Your task to perform on an android device: install app "Google Find My Device" Image 0: 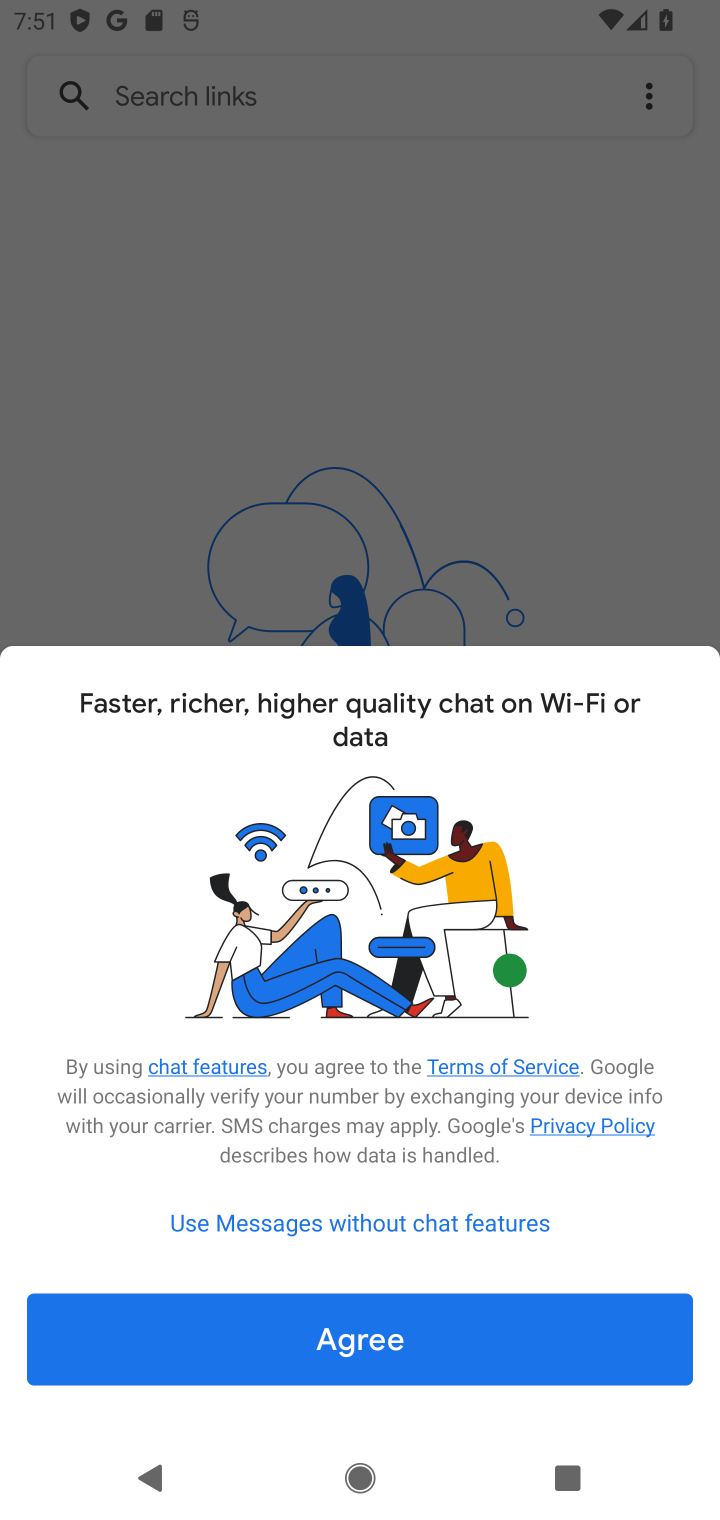
Step 0: press back button
Your task to perform on an android device: install app "Google Find My Device" Image 1: 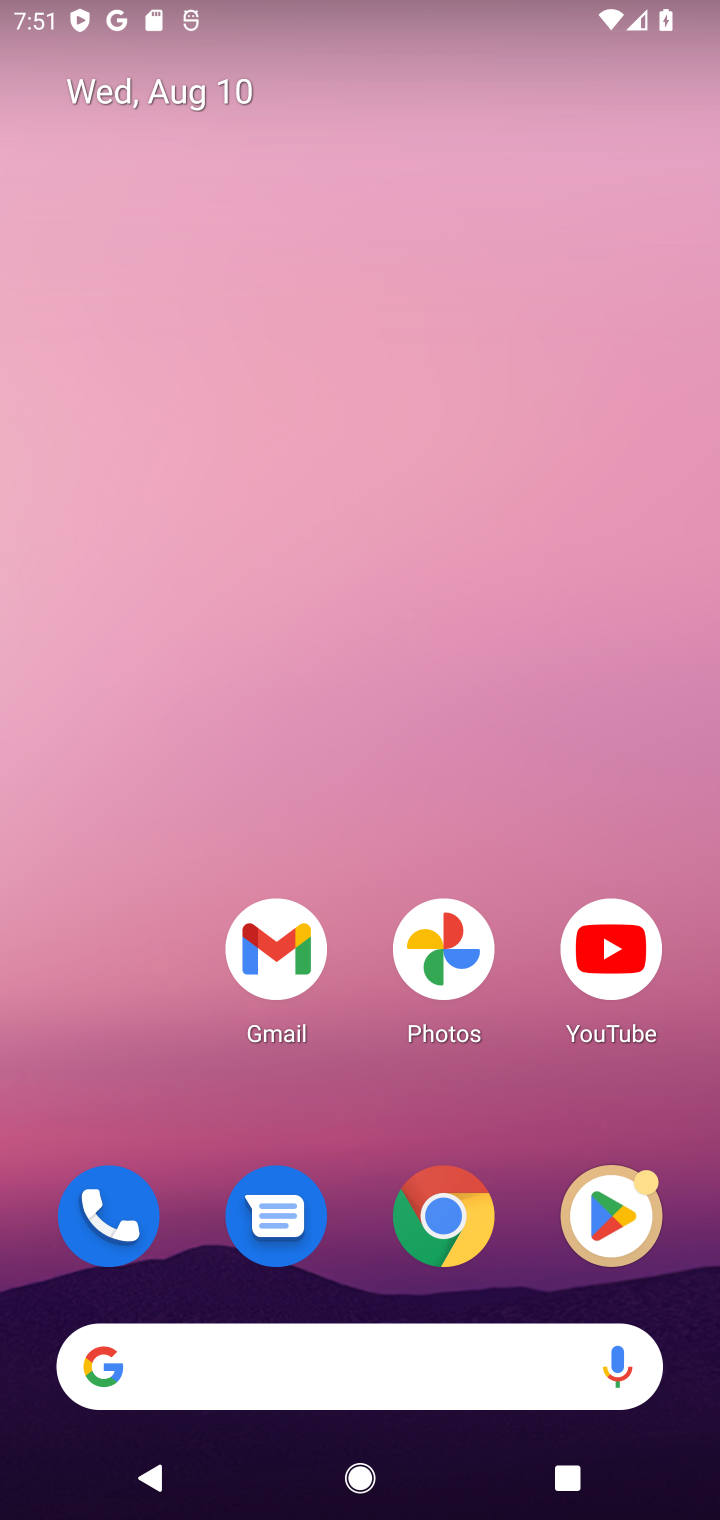
Step 1: click (596, 1209)
Your task to perform on an android device: install app "Google Find My Device" Image 2: 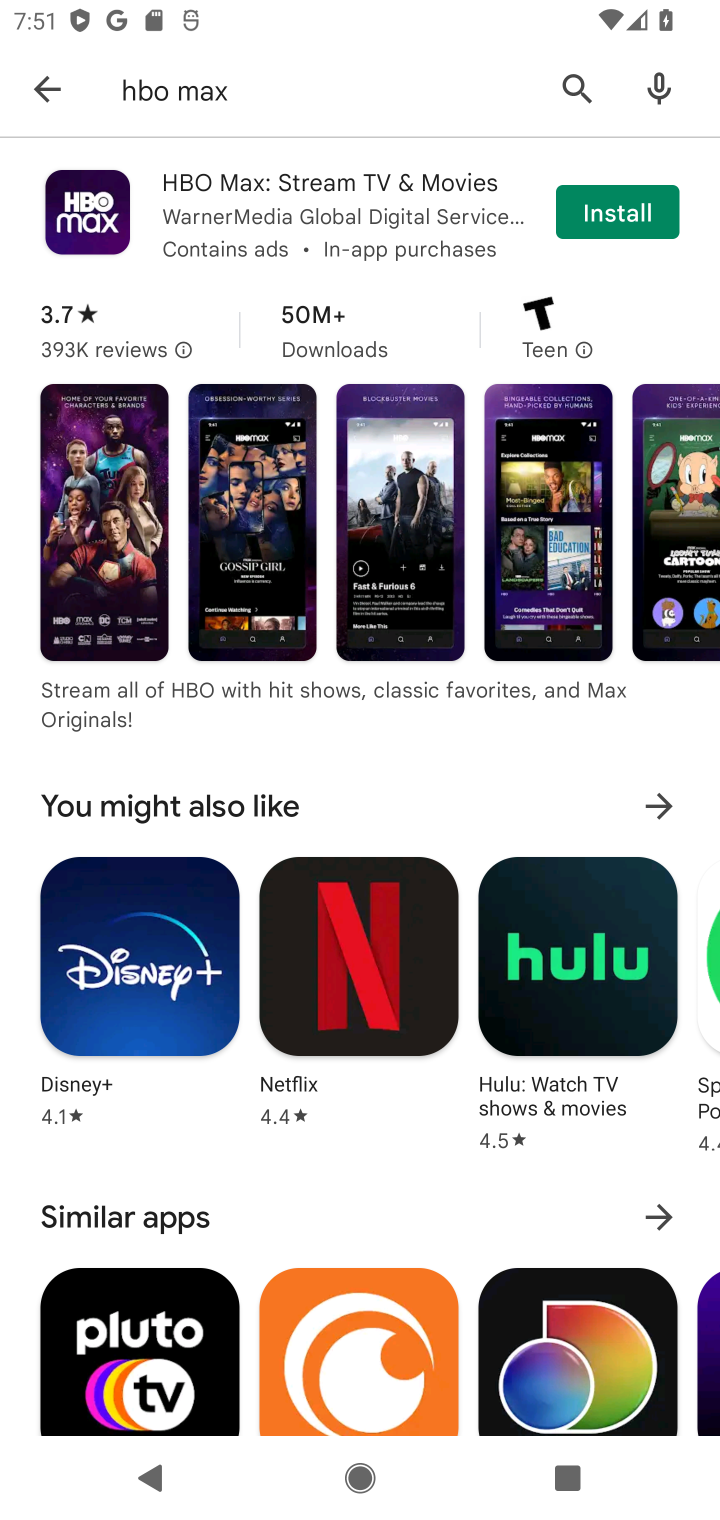
Step 2: click (572, 91)
Your task to perform on an android device: install app "Google Find My Device" Image 3: 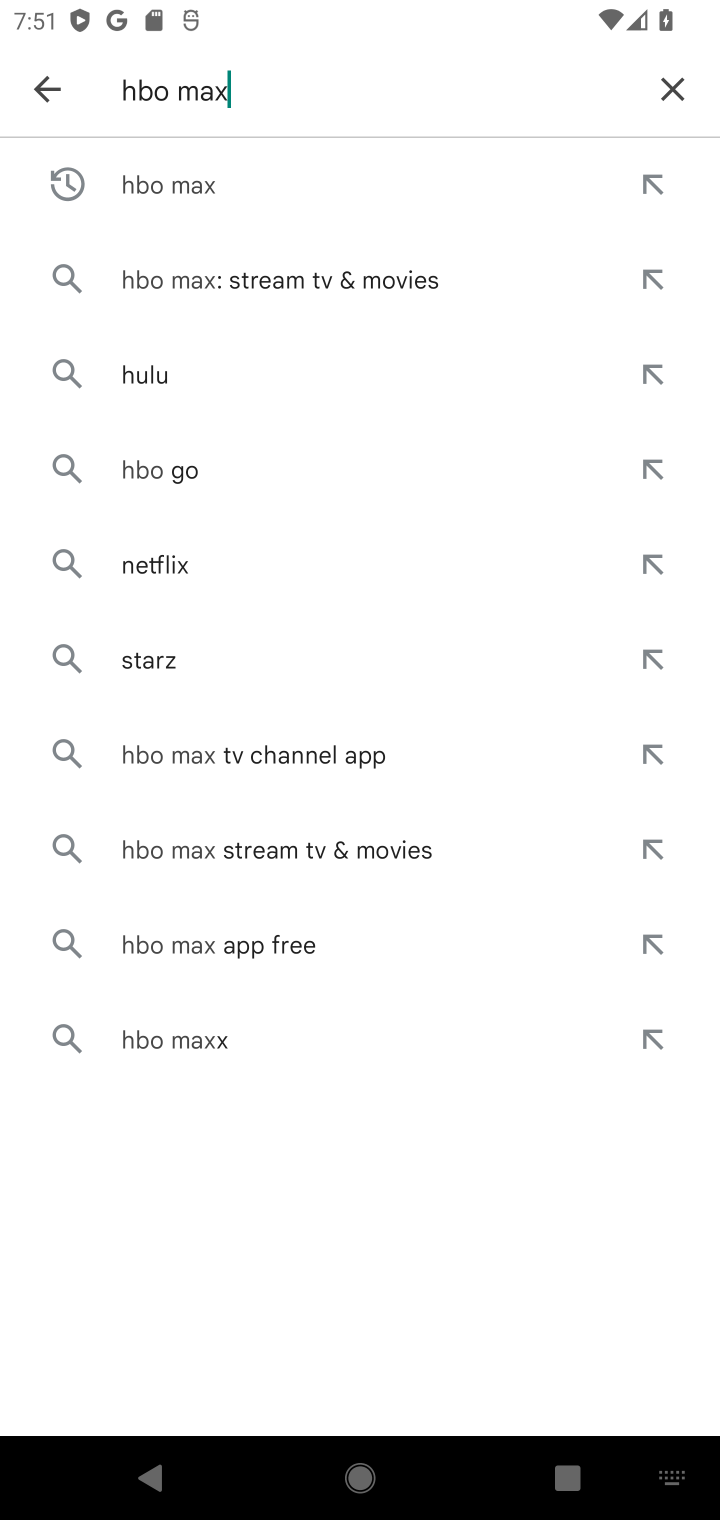
Step 3: click (673, 95)
Your task to perform on an android device: install app "Google Find My Device" Image 4: 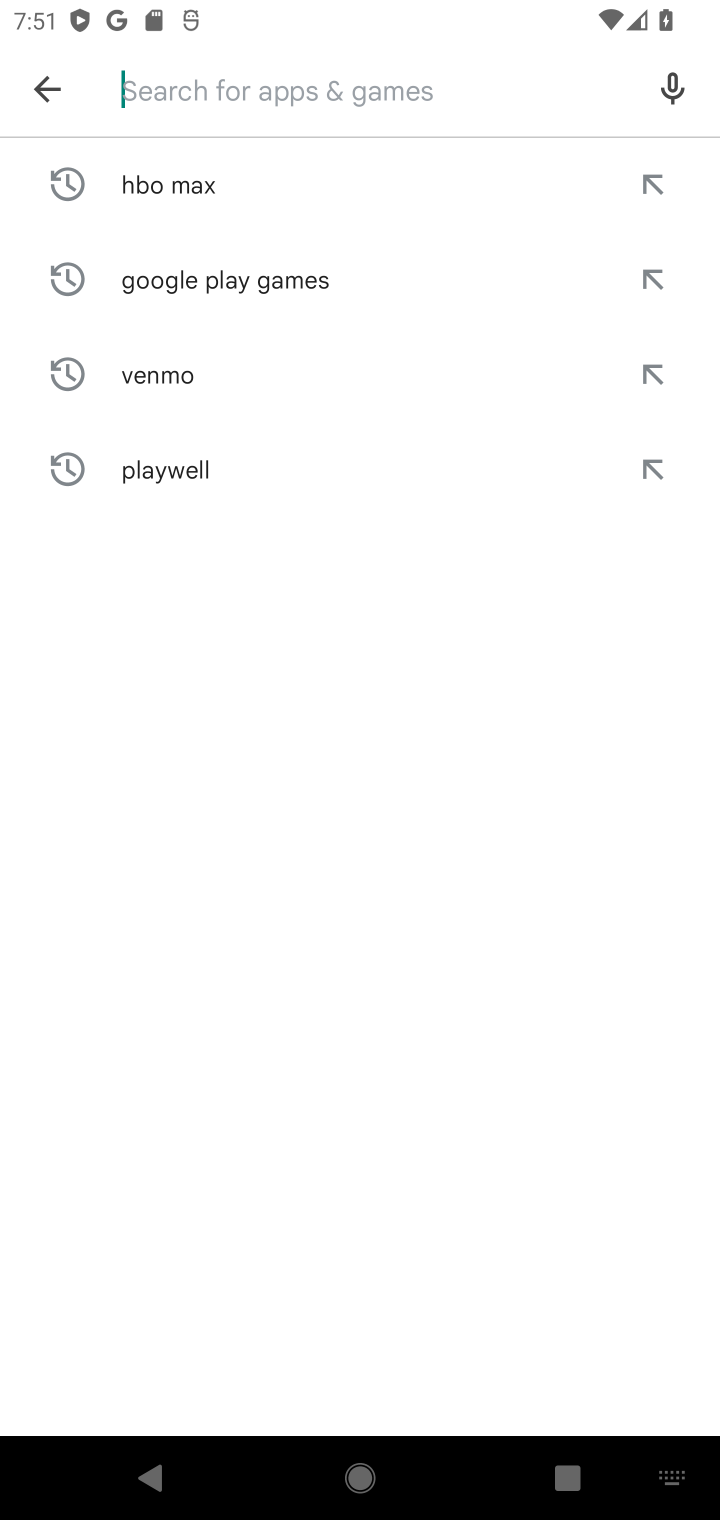
Step 4: click (287, 86)
Your task to perform on an android device: install app "Google Find My Device" Image 5: 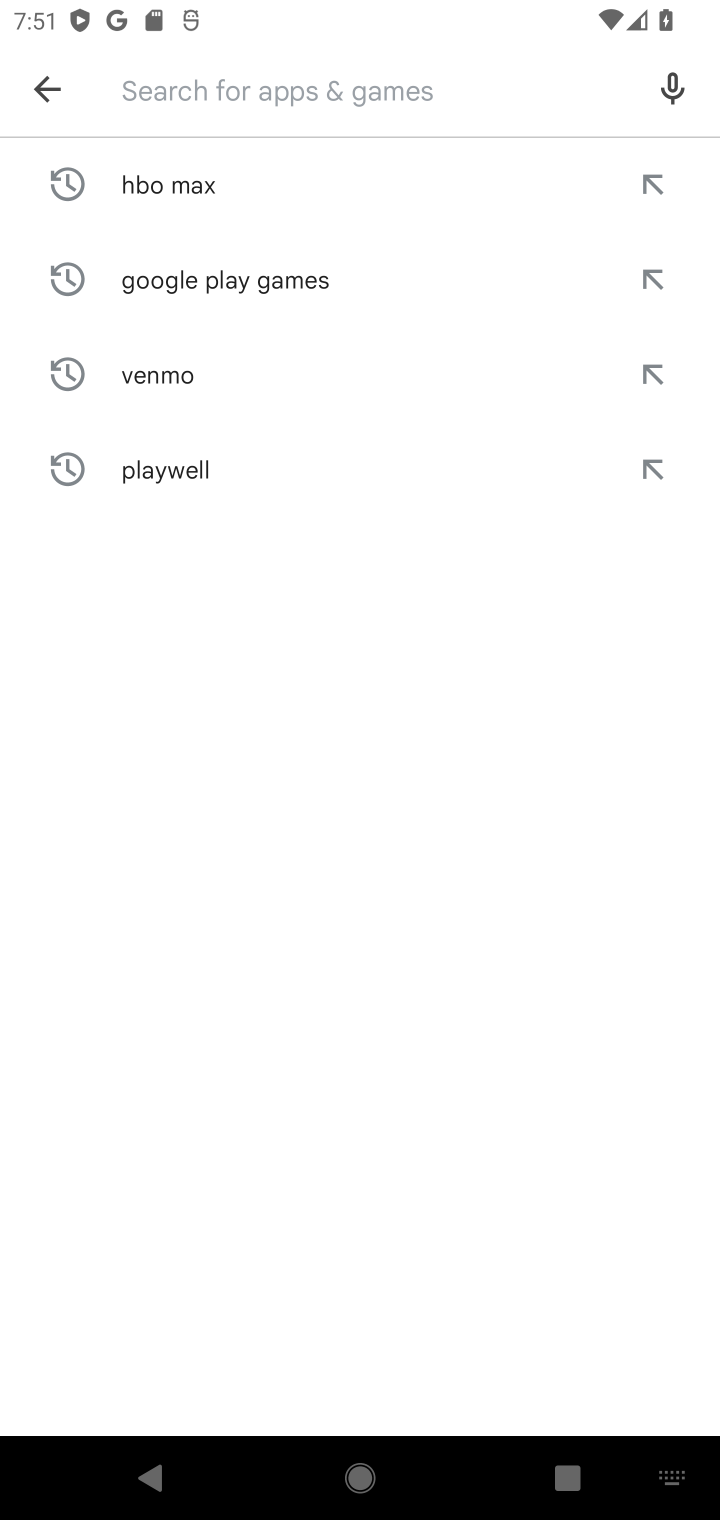
Step 5: click (179, 97)
Your task to perform on an android device: install app "Google Find My Device" Image 6: 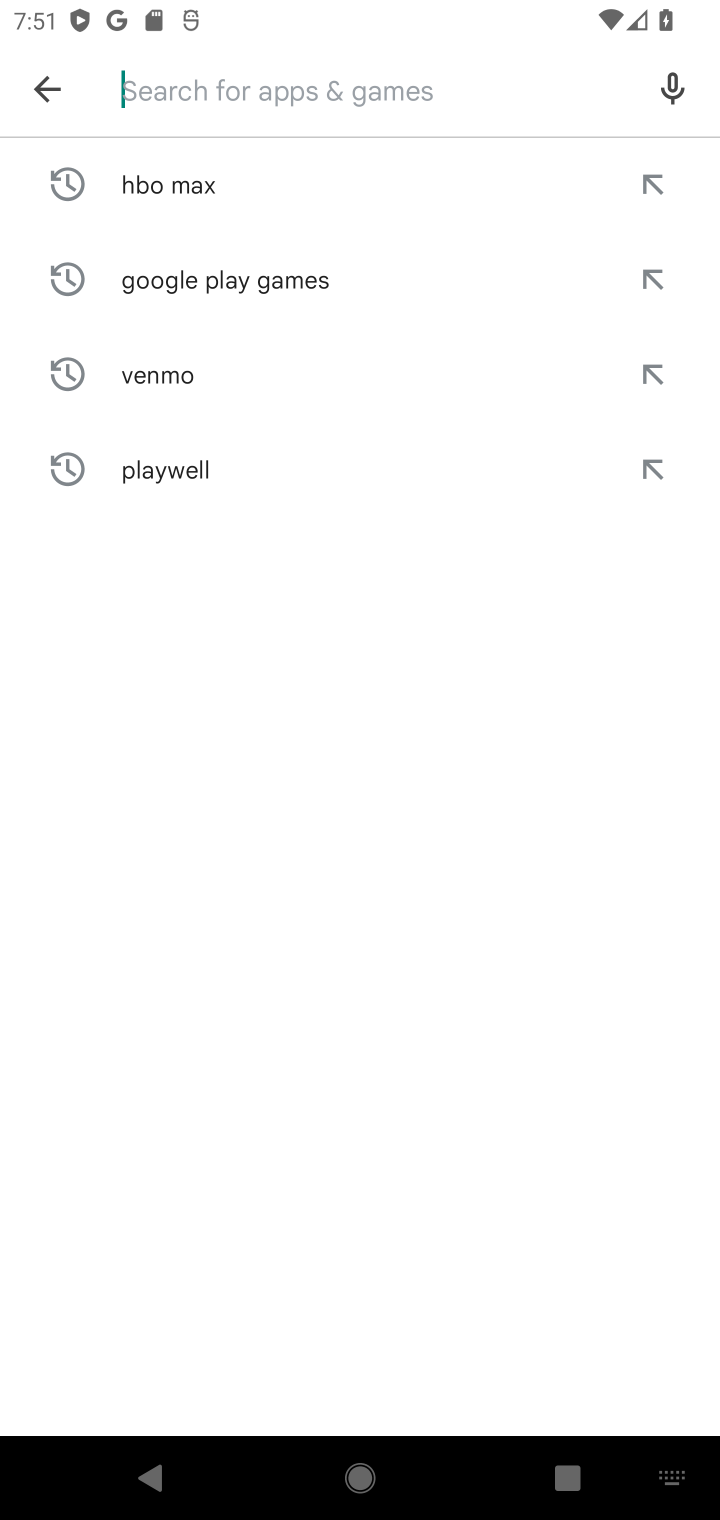
Step 6: type "Google Find My Device"
Your task to perform on an android device: install app "Google Find My Device" Image 7: 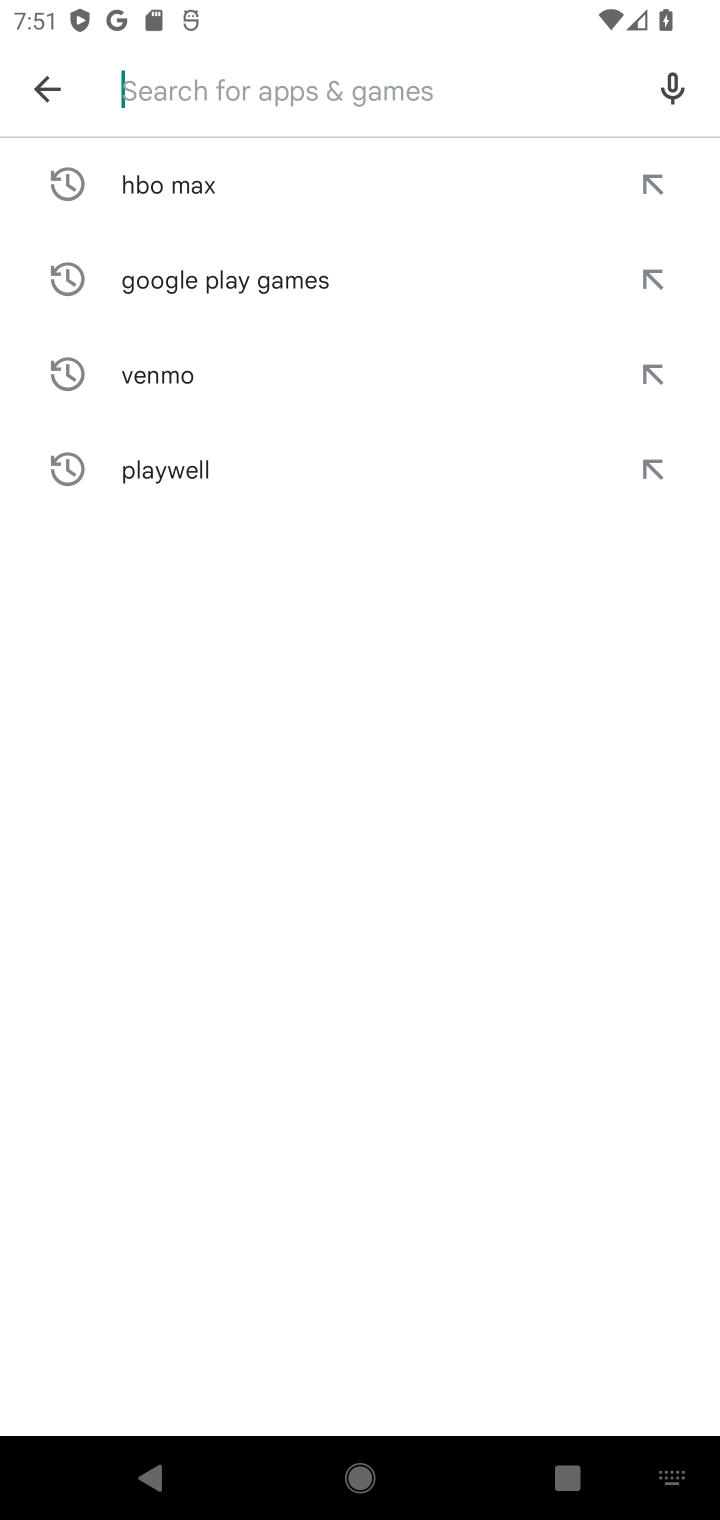
Step 7: click (407, 800)
Your task to perform on an android device: install app "Google Find My Device" Image 8: 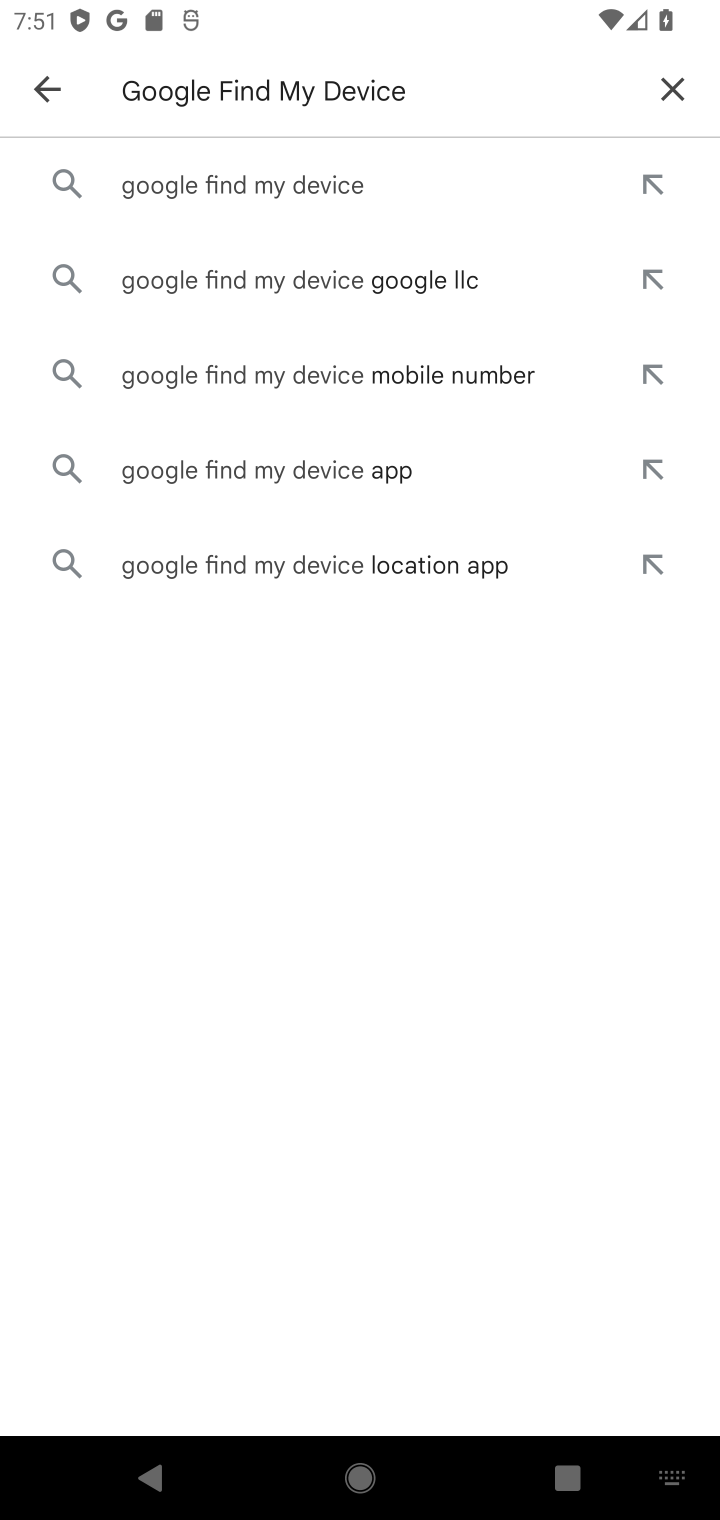
Step 8: click (287, 204)
Your task to perform on an android device: install app "Google Find My Device" Image 9: 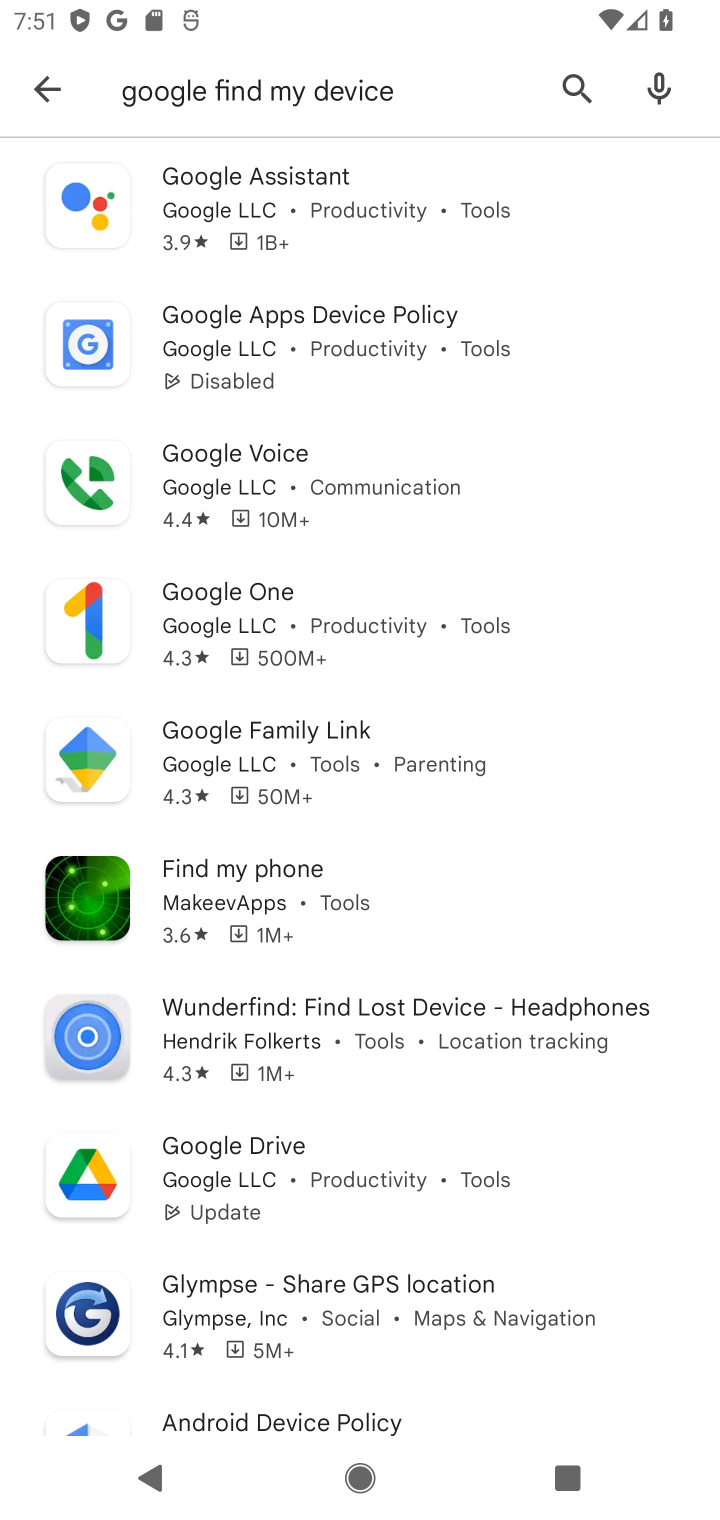
Step 9: task complete